Your task to perform on an android device: What's on my calendar today? Image 0: 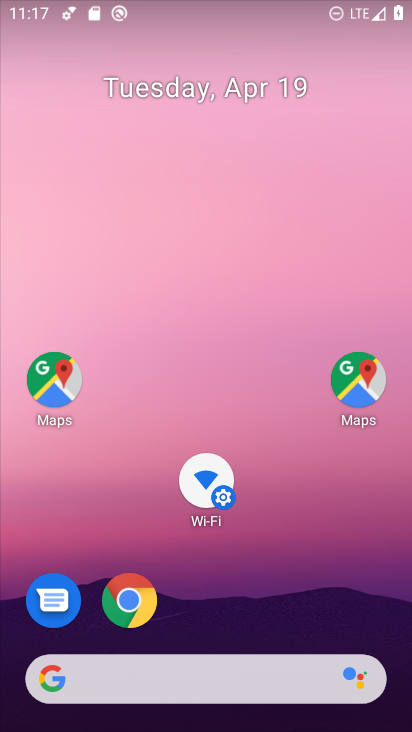
Step 0: drag from (304, 647) to (328, 123)
Your task to perform on an android device: What's on my calendar today? Image 1: 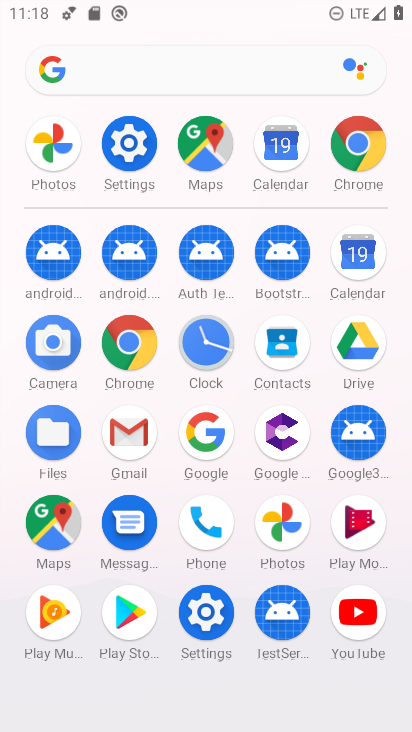
Step 1: click (359, 261)
Your task to perform on an android device: What's on my calendar today? Image 2: 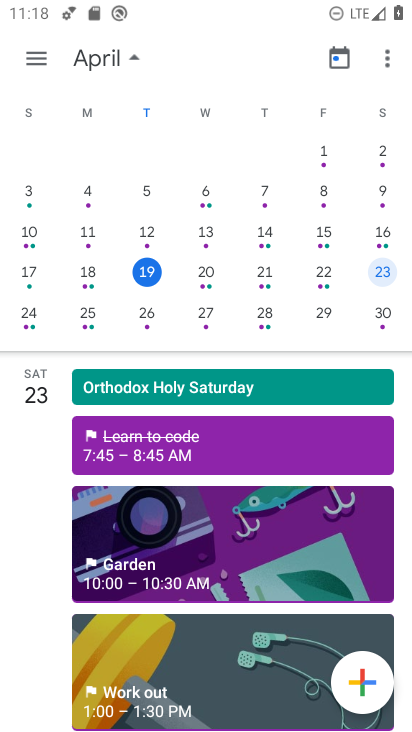
Step 2: click (197, 275)
Your task to perform on an android device: What's on my calendar today? Image 3: 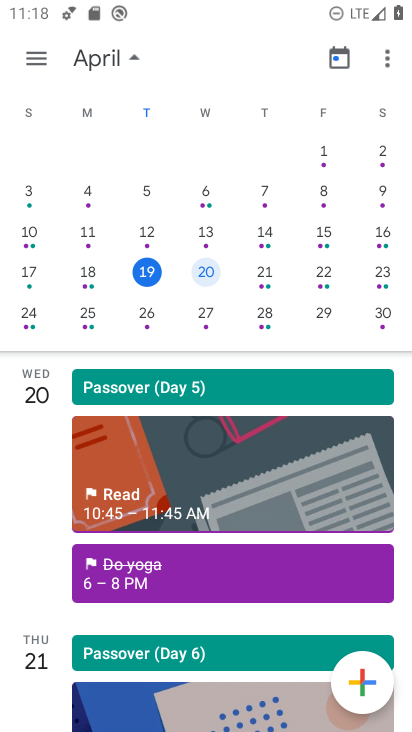
Step 3: task complete